Your task to perform on an android device: open app "Microsoft Outlook" Image 0: 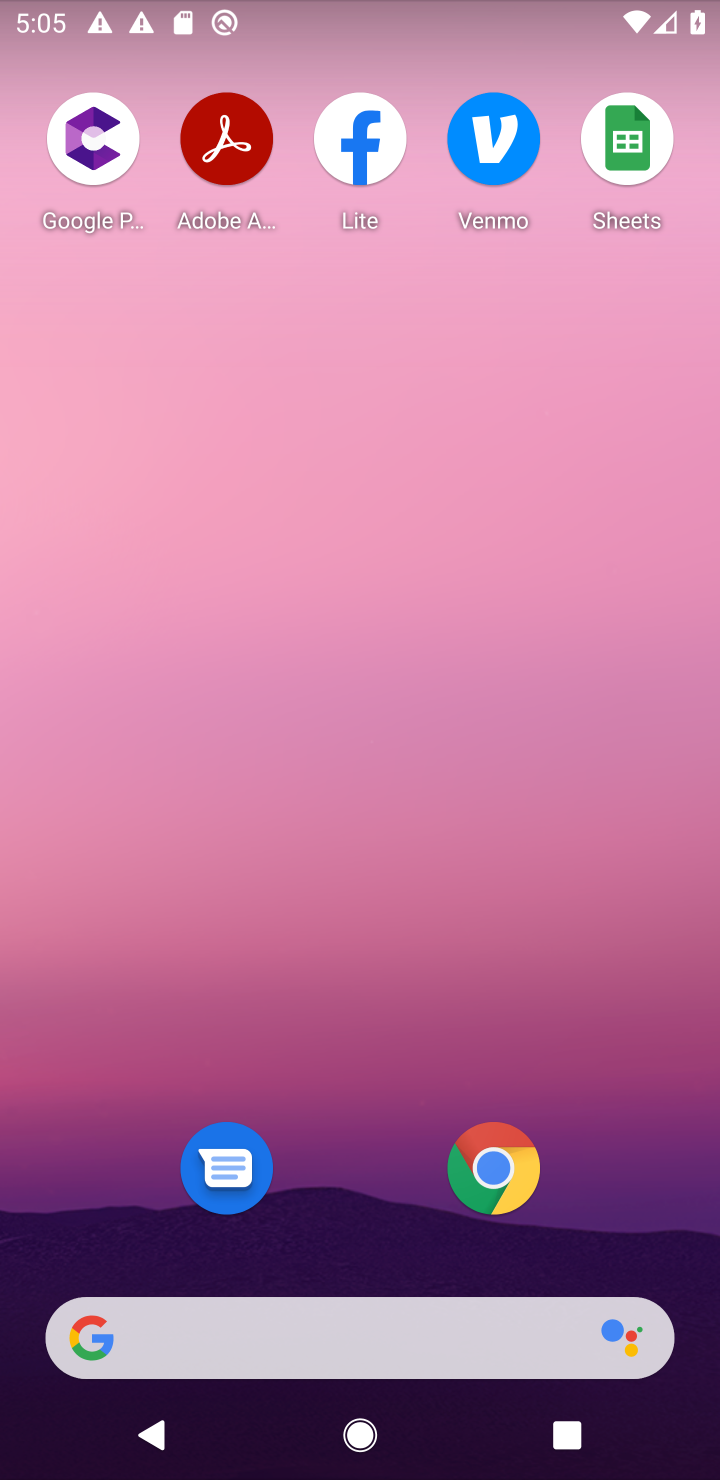
Step 0: drag from (333, 1040) to (409, 17)
Your task to perform on an android device: open app "Microsoft Outlook" Image 1: 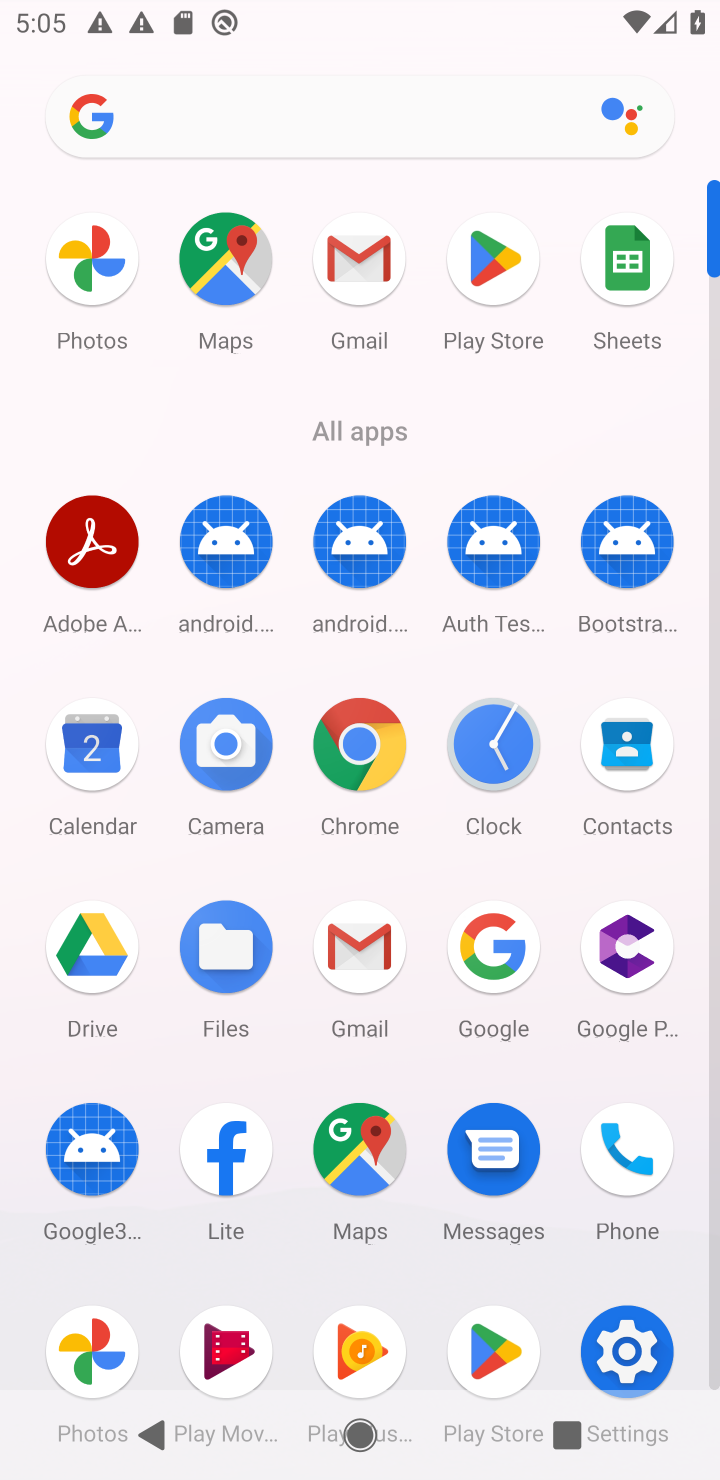
Step 1: click (505, 286)
Your task to perform on an android device: open app "Microsoft Outlook" Image 2: 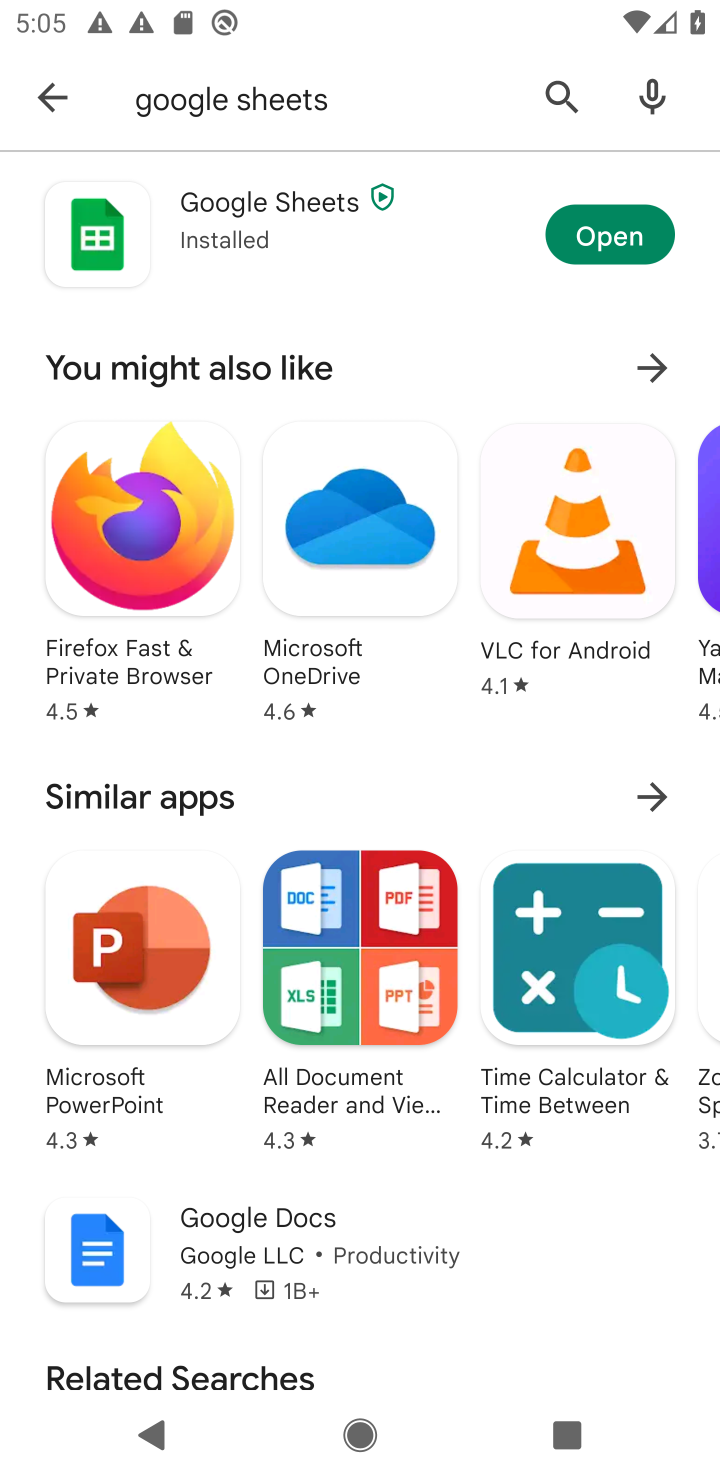
Step 2: click (238, 103)
Your task to perform on an android device: open app "Microsoft Outlook" Image 3: 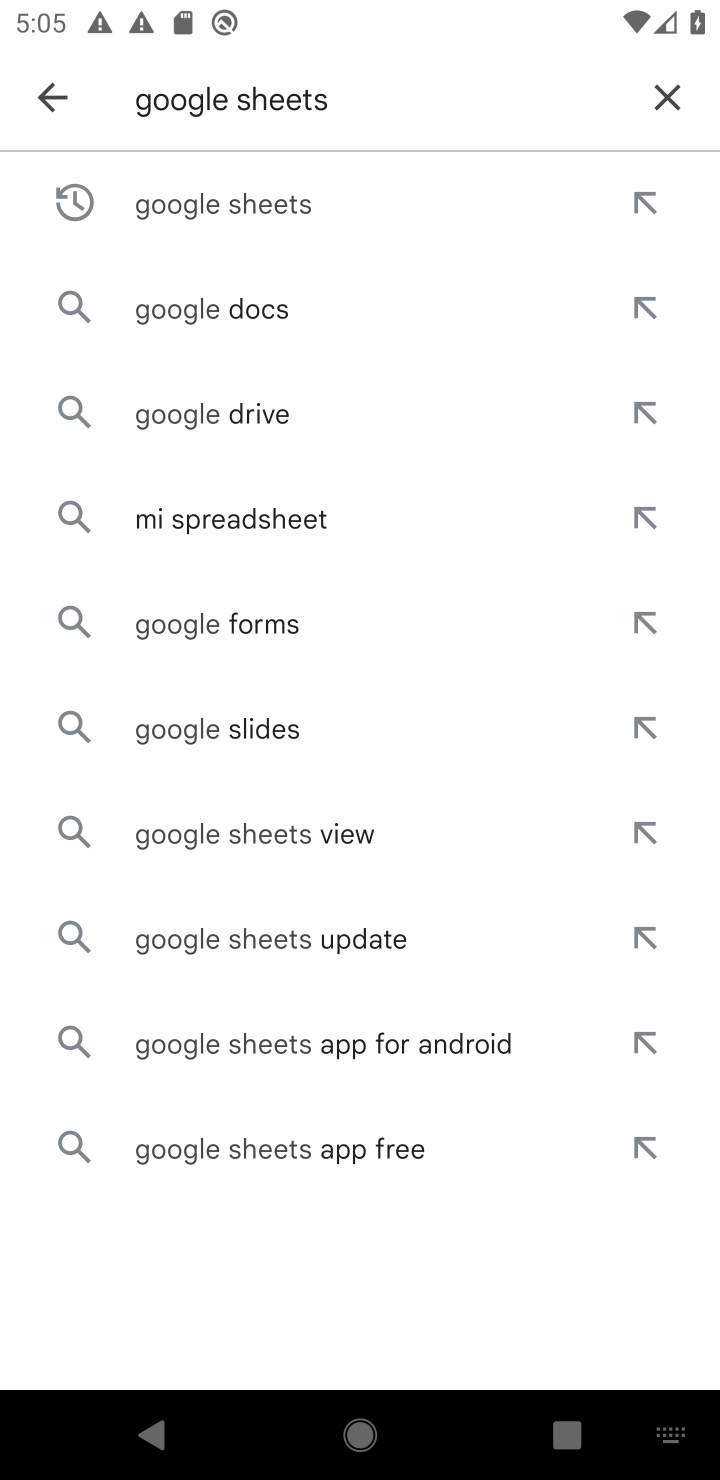
Step 3: click (667, 101)
Your task to perform on an android device: open app "Microsoft Outlook" Image 4: 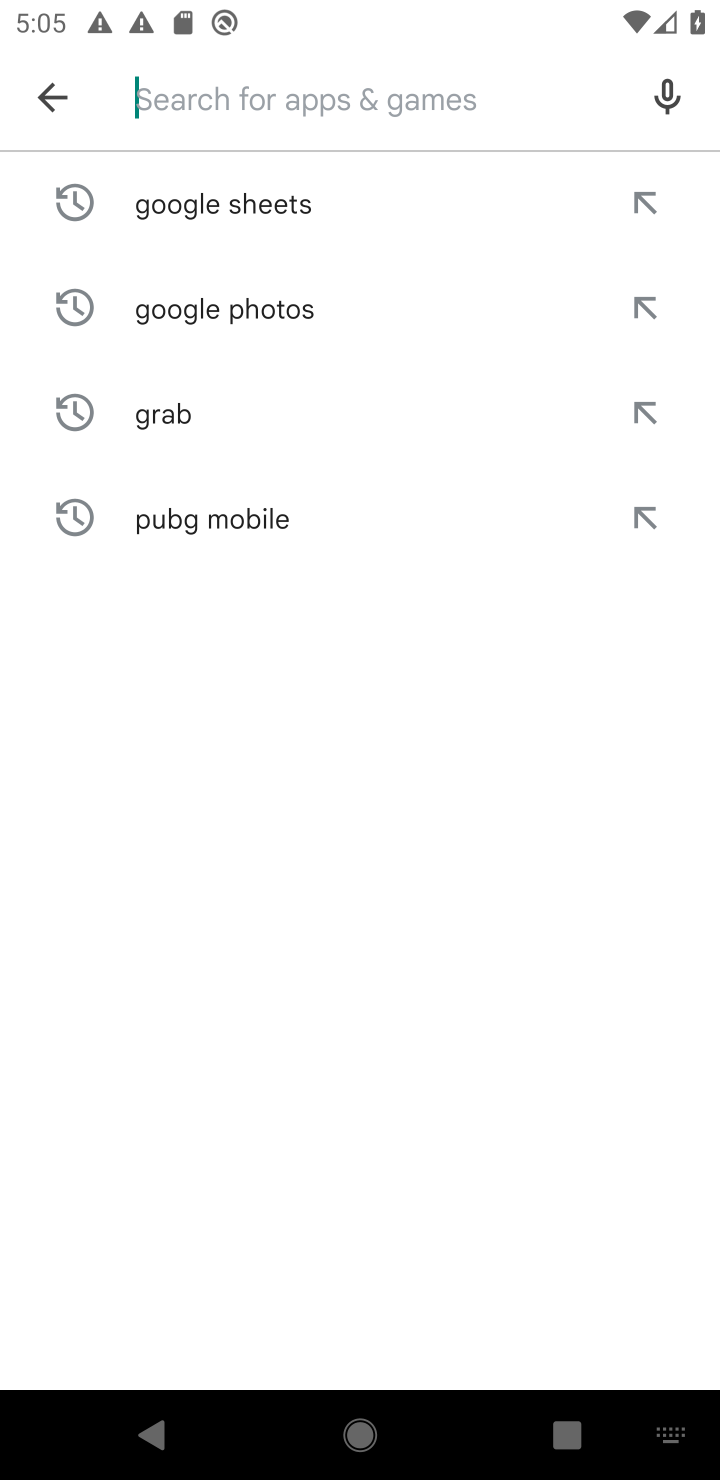
Step 4: type "microsoft outlook"
Your task to perform on an android device: open app "Microsoft Outlook" Image 5: 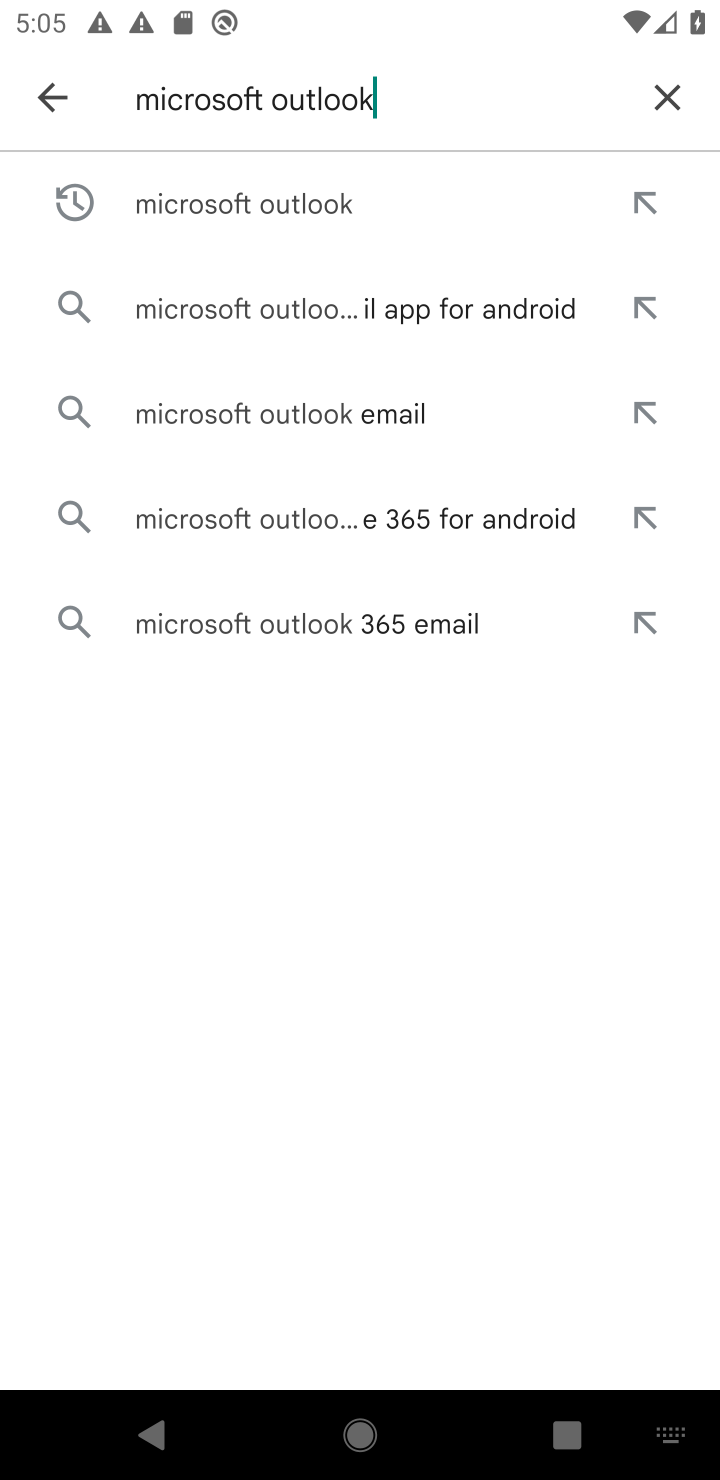
Step 5: click (226, 202)
Your task to perform on an android device: open app "Microsoft Outlook" Image 6: 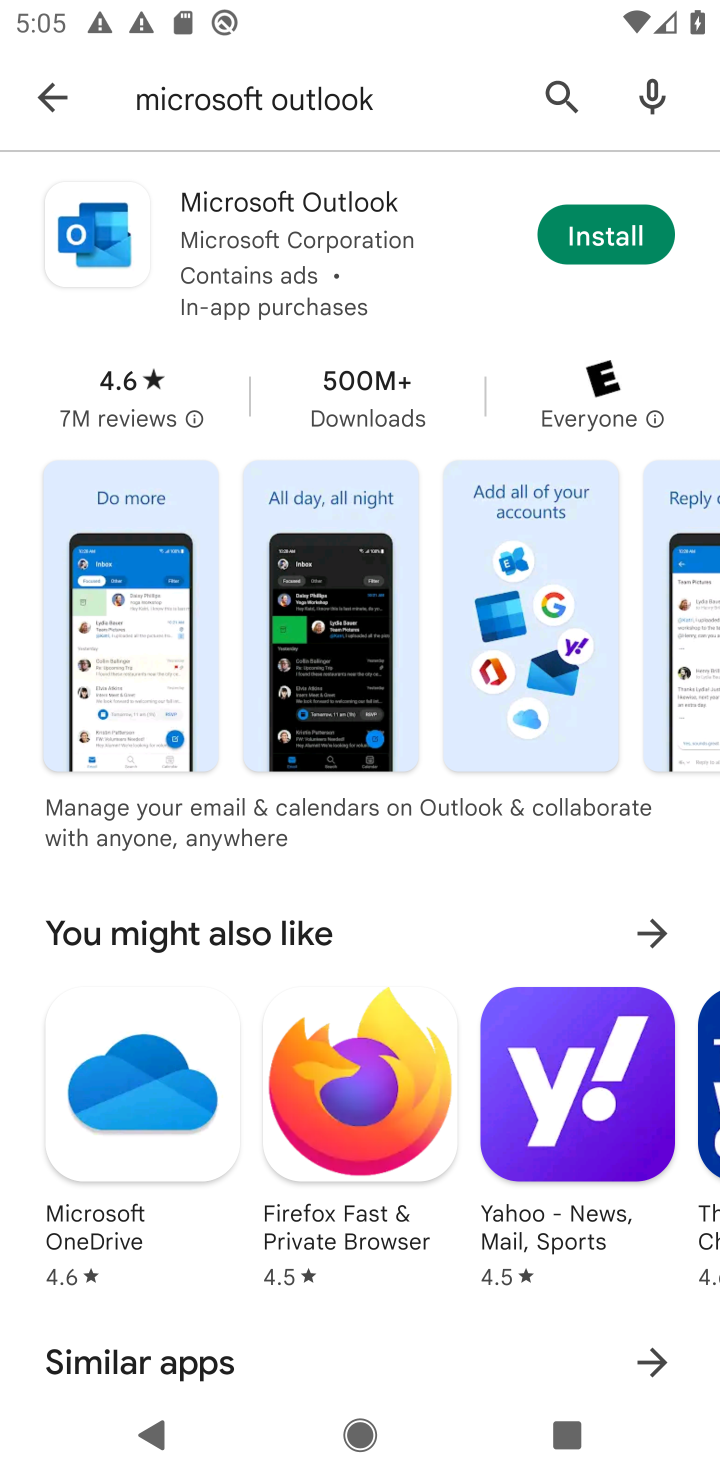
Step 6: task complete